Your task to perform on an android device: toggle wifi Image 0: 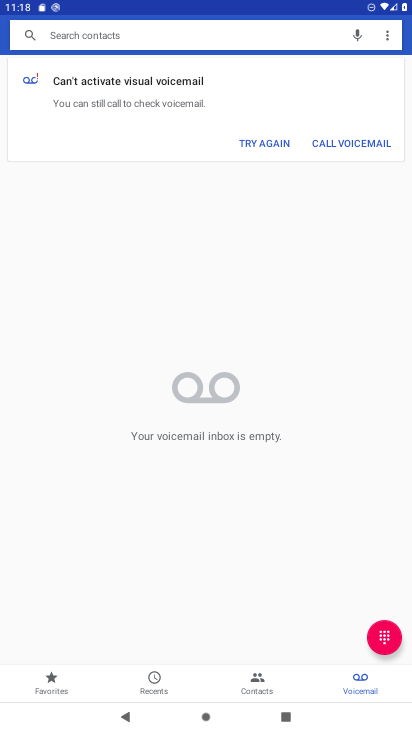
Step 0: press home button
Your task to perform on an android device: toggle wifi Image 1: 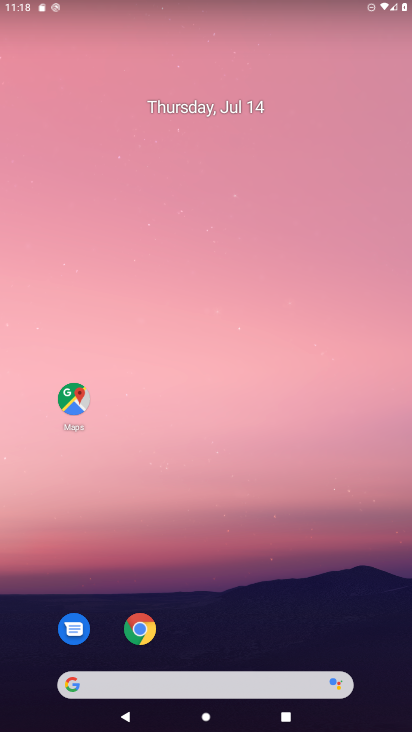
Step 1: drag from (198, 655) to (193, 127)
Your task to perform on an android device: toggle wifi Image 2: 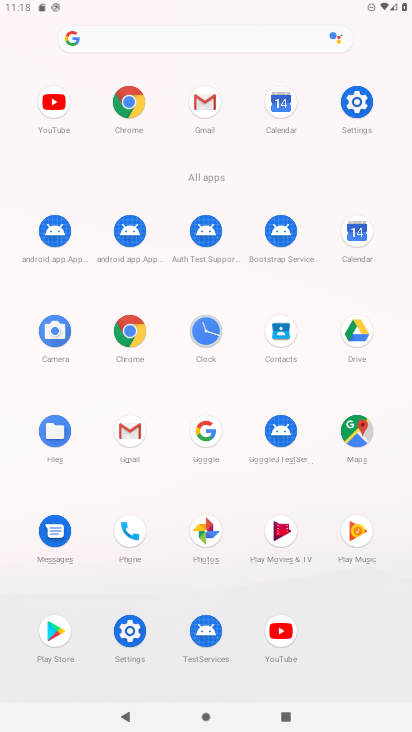
Step 2: click (350, 111)
Your task to perform on an android device: toggle wifi Image 3: 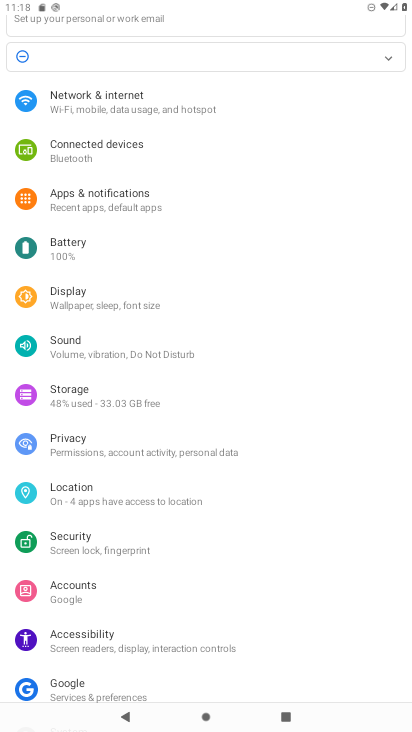
Step 3: click (162, 108)
Your task to perform on an android device: toggle wifi Image 4: 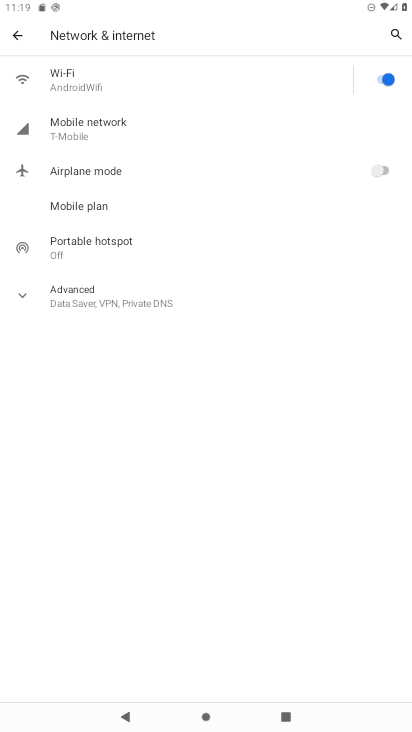
Step 4: click (372, 83)
Your task to perform on an android device: toggle wifi Image 5: 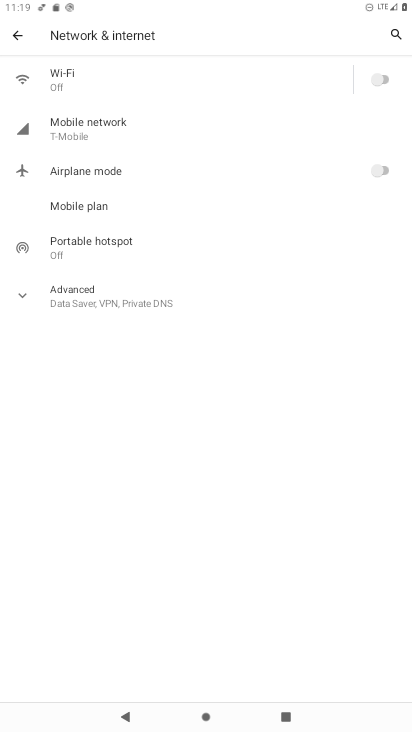
Step 5: task complete